Your task to perform on an android device: turn on improve location accuracy Image 0: 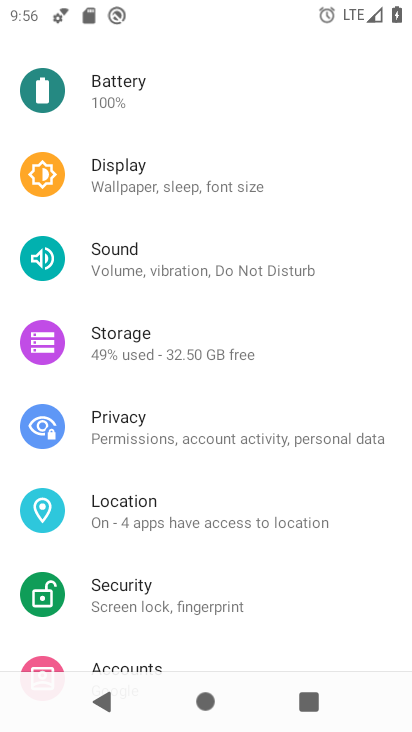
Step 0: click (203, 505)
Your task to perform on an android device: turn on improve location accuracy Image 1: 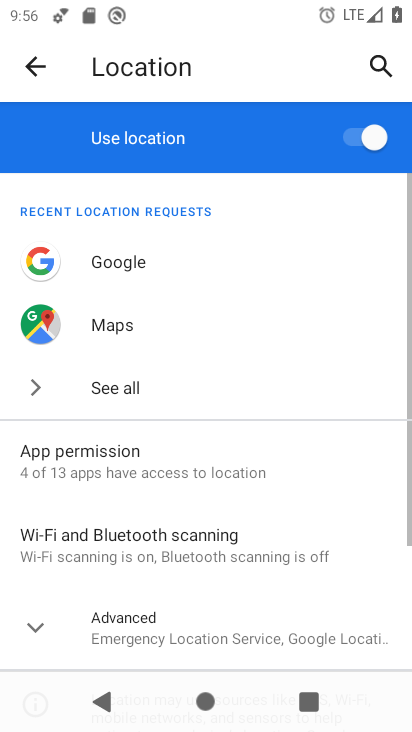
Step 1: click (33, 627)
Your task to perform on an android device: turn on improve location accuracy Image 2: 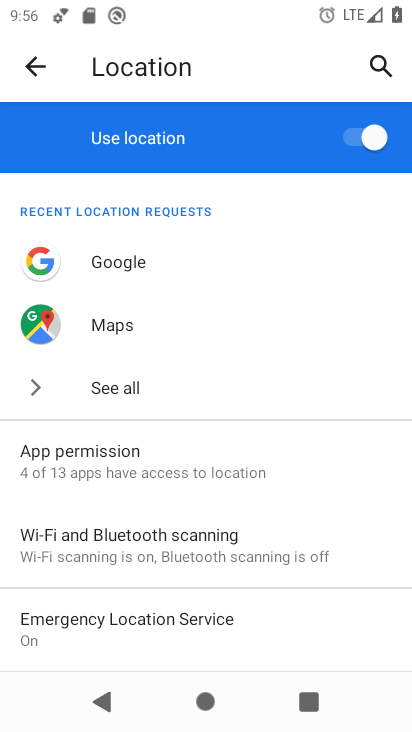
Step 2: drag from (177, 509) to (157, 231)
Your task to perform on an android device: turn on improve location accuracy Image 3: 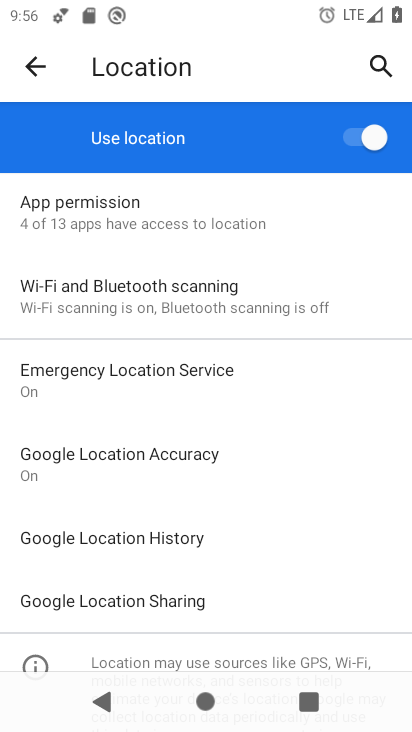
Step 3: click (174, 454)
Your task to perform on an android device: turn on improve location accuracy Image 4: 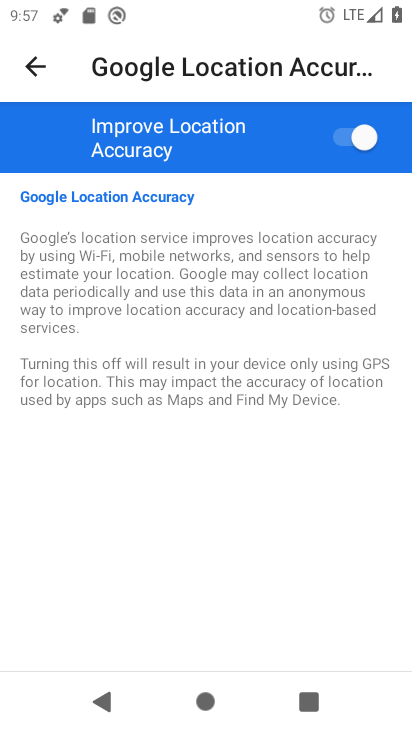
Step 4: task complete